Your task to perform on an android device: turn off data saver in the chrome app Image 0: 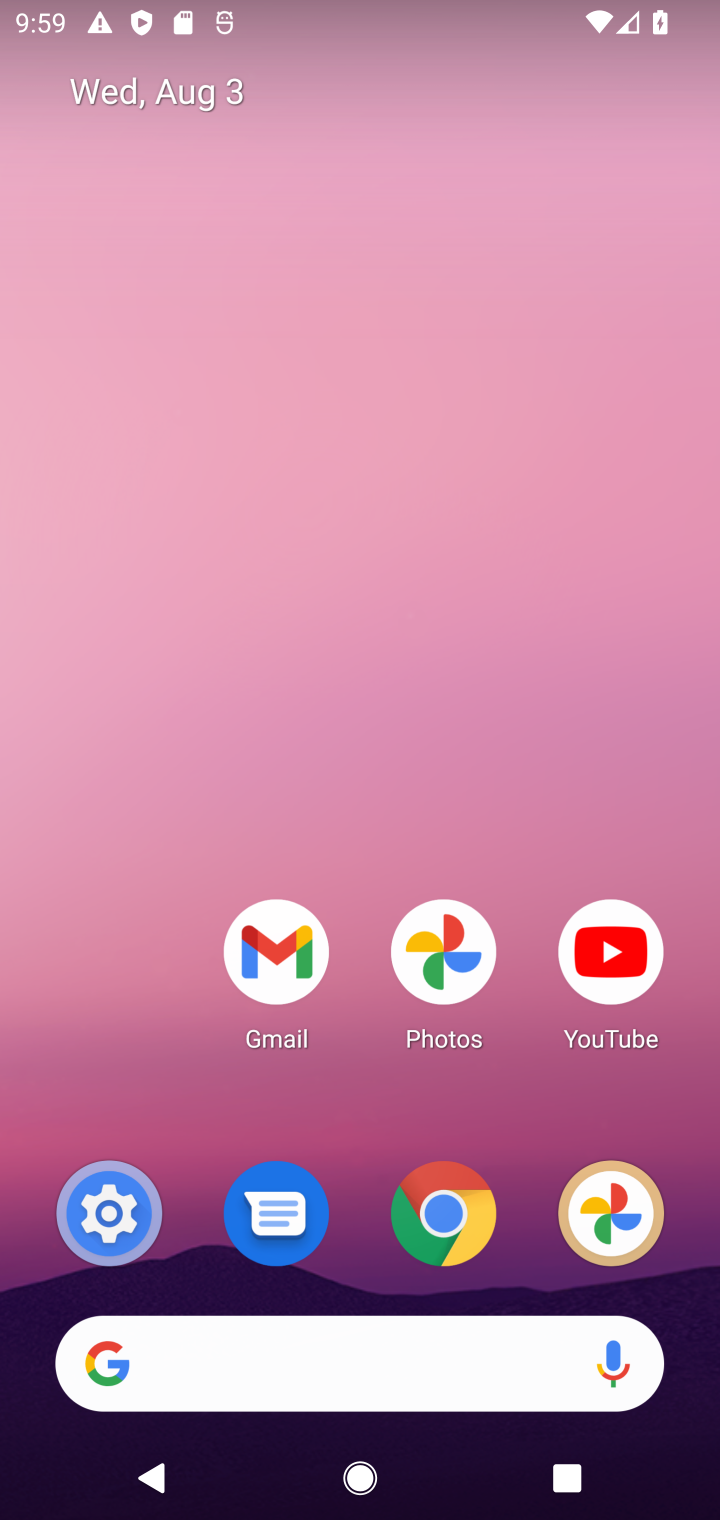
Step 0: press home button
Your task to perform on an android device: turn off data saver in the chrome app Image 1: 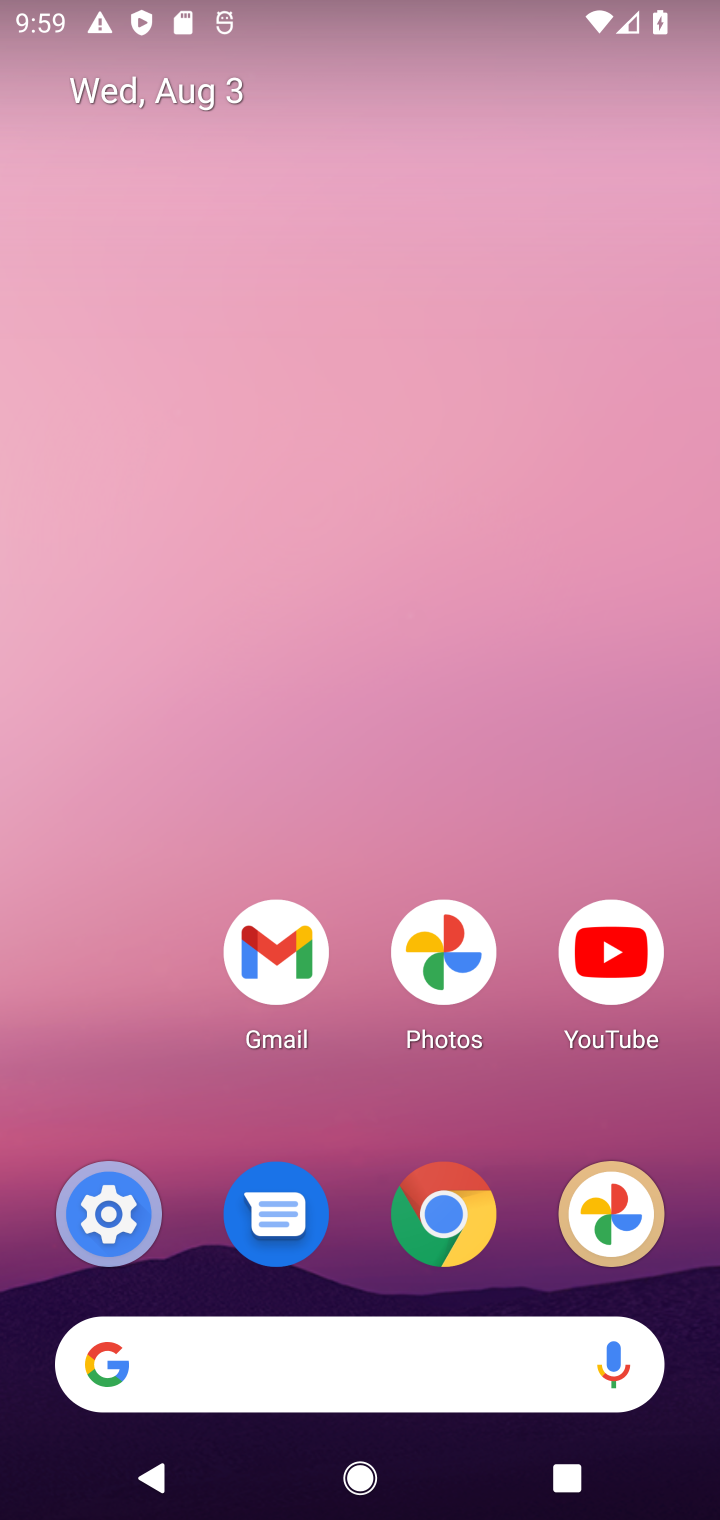
Step 1: click (442, 1257)
Your task to perform on an android device: turn off data saver in the chrome app Image 2: 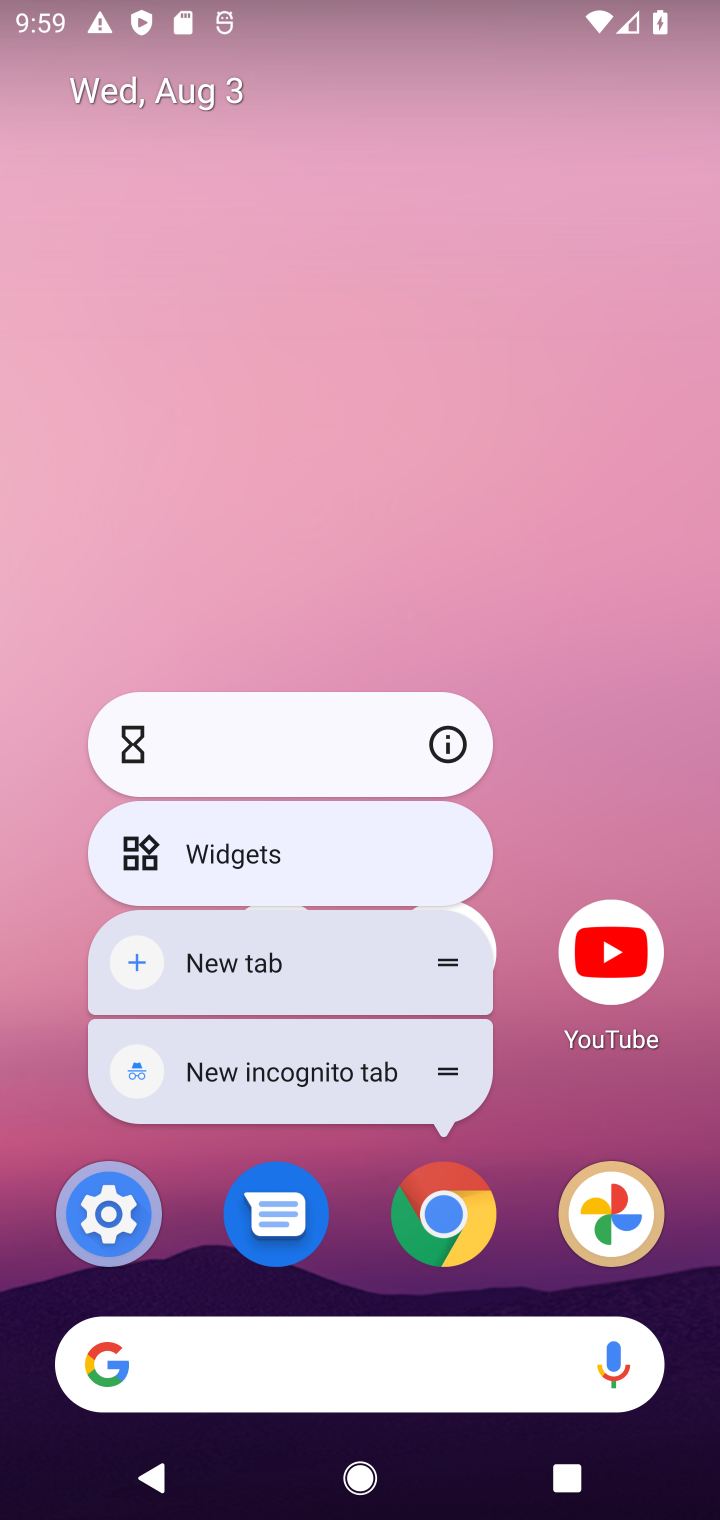
Step 2: click (442, 1257)
Your task to perform on an android device: turn off data saver in the chrome app Image 3: 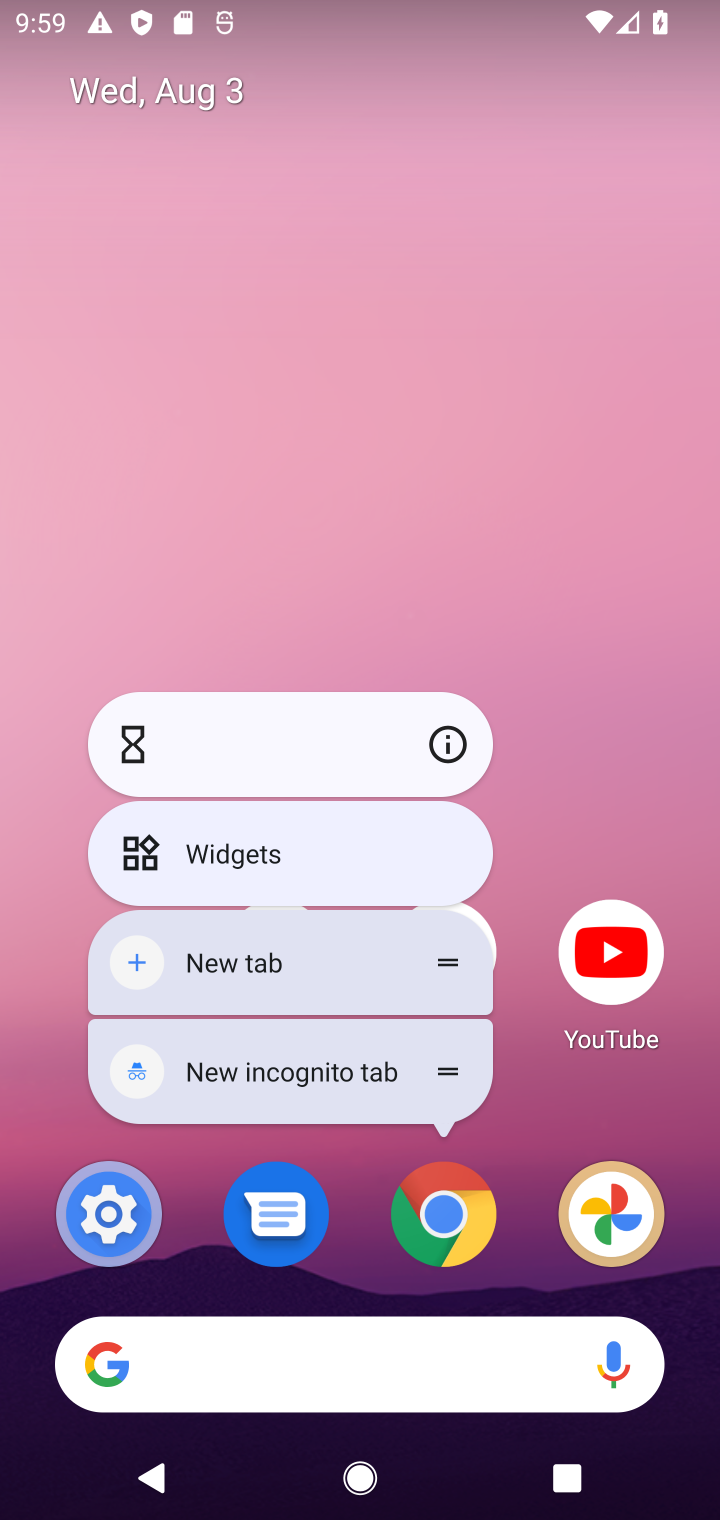
Step 3: click (471, 1223)
Your task to perform on an android device: turn off data saver in the chrome app Image 4: 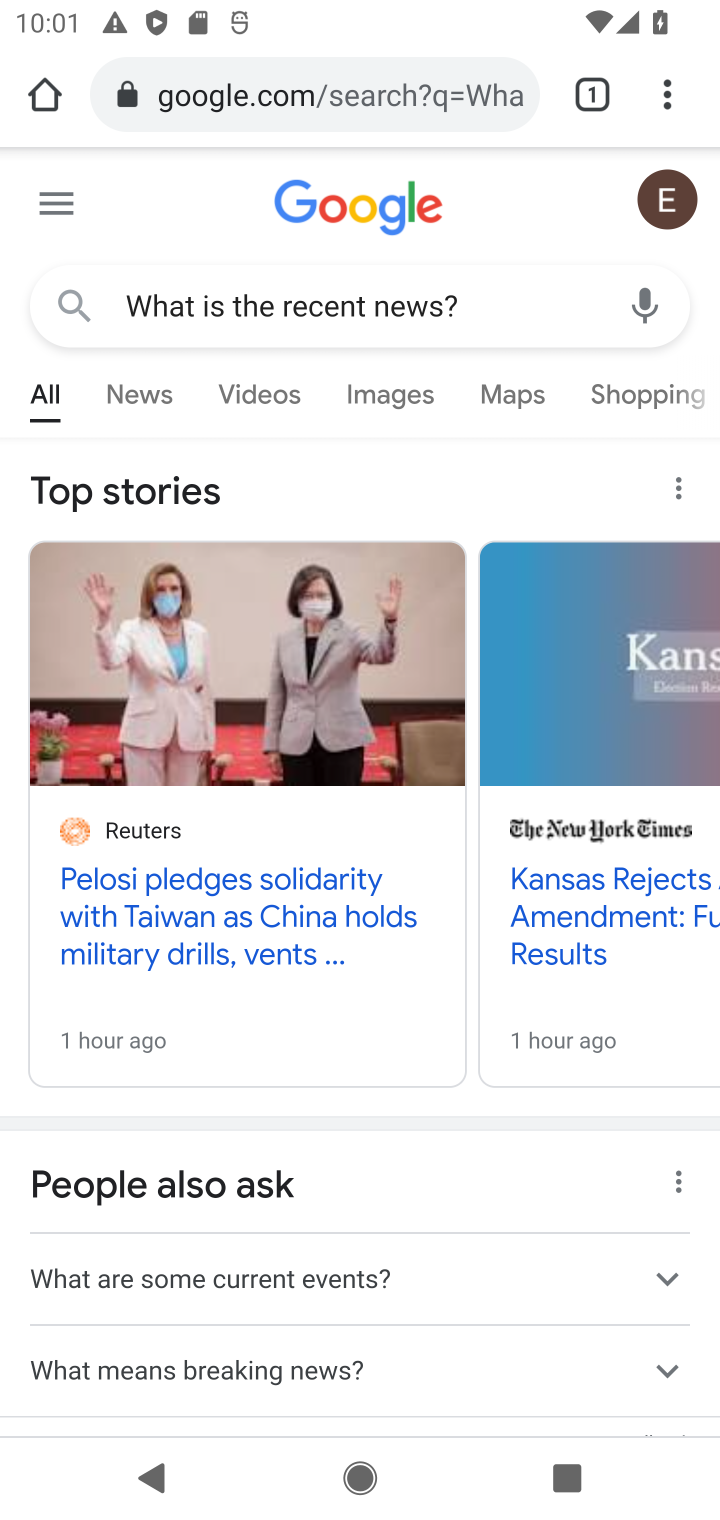
Step 4: drag from (667, 79) to (373, 1228)
Your task to perform on an android device: turn off data saver in the chrome app Image 5: 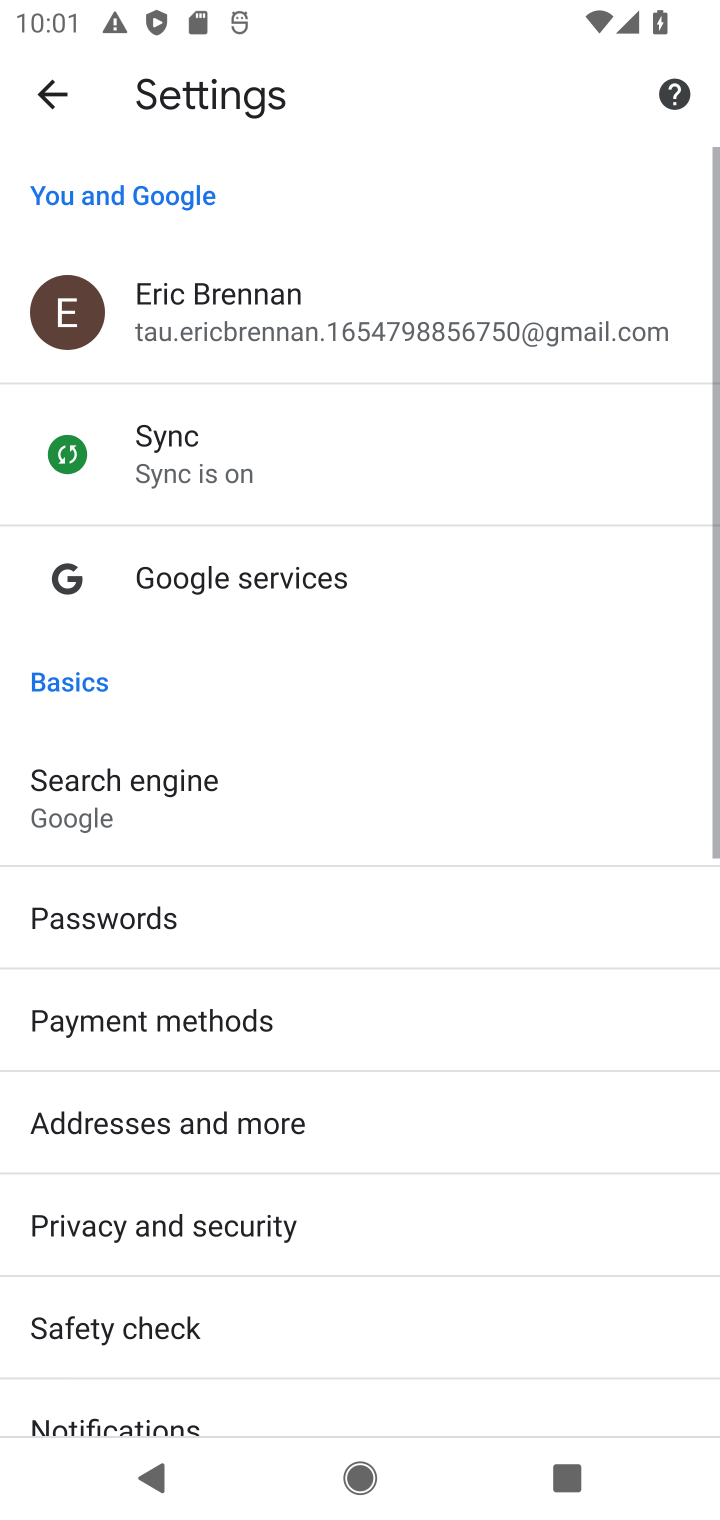
Step 5: drag from (175, 1263) to (376, 605)
Your task to perform on an android device: turn off data saver in the chrome app Image 6: 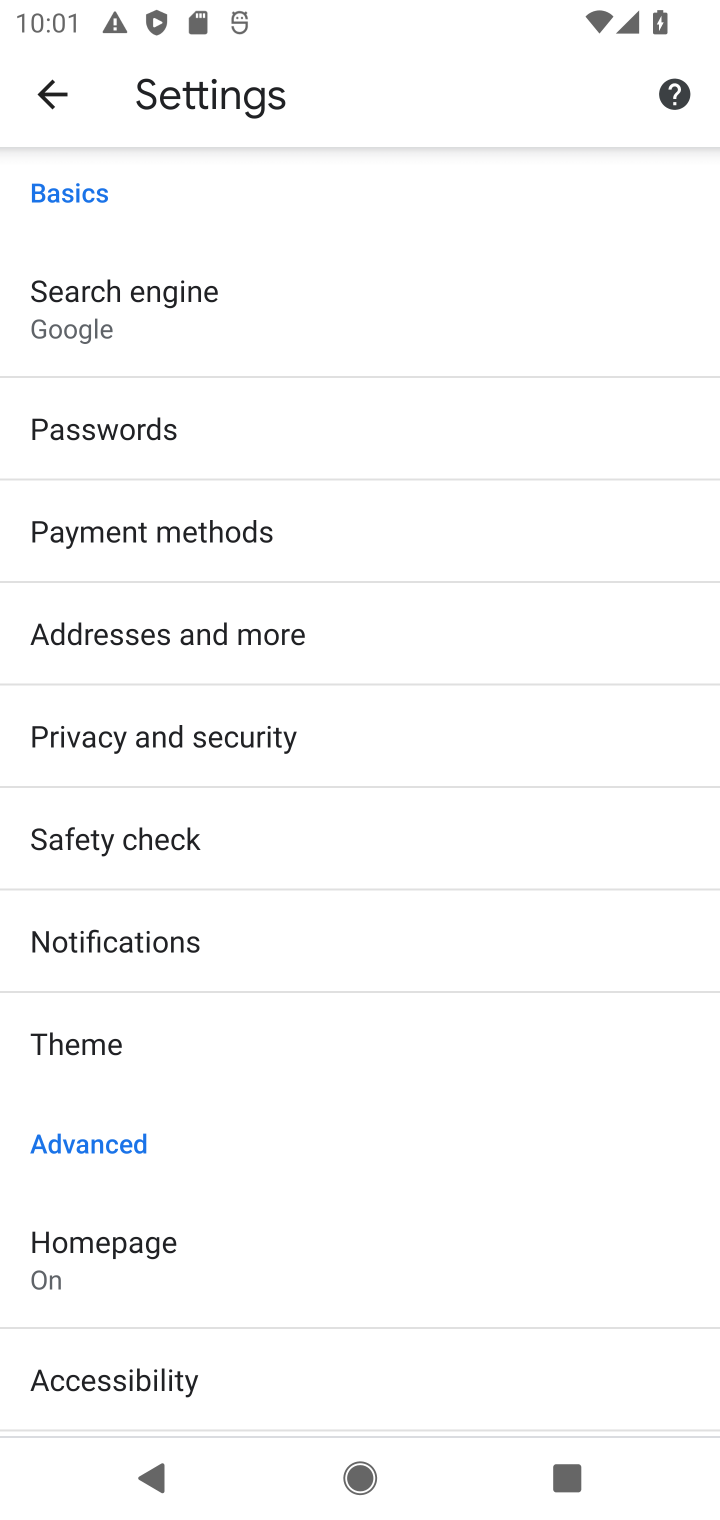
Step 6: drag from (158, 1329) to (245, 462)
Your task to perform on an android device: turn off data saver in the chrome app Image 7: 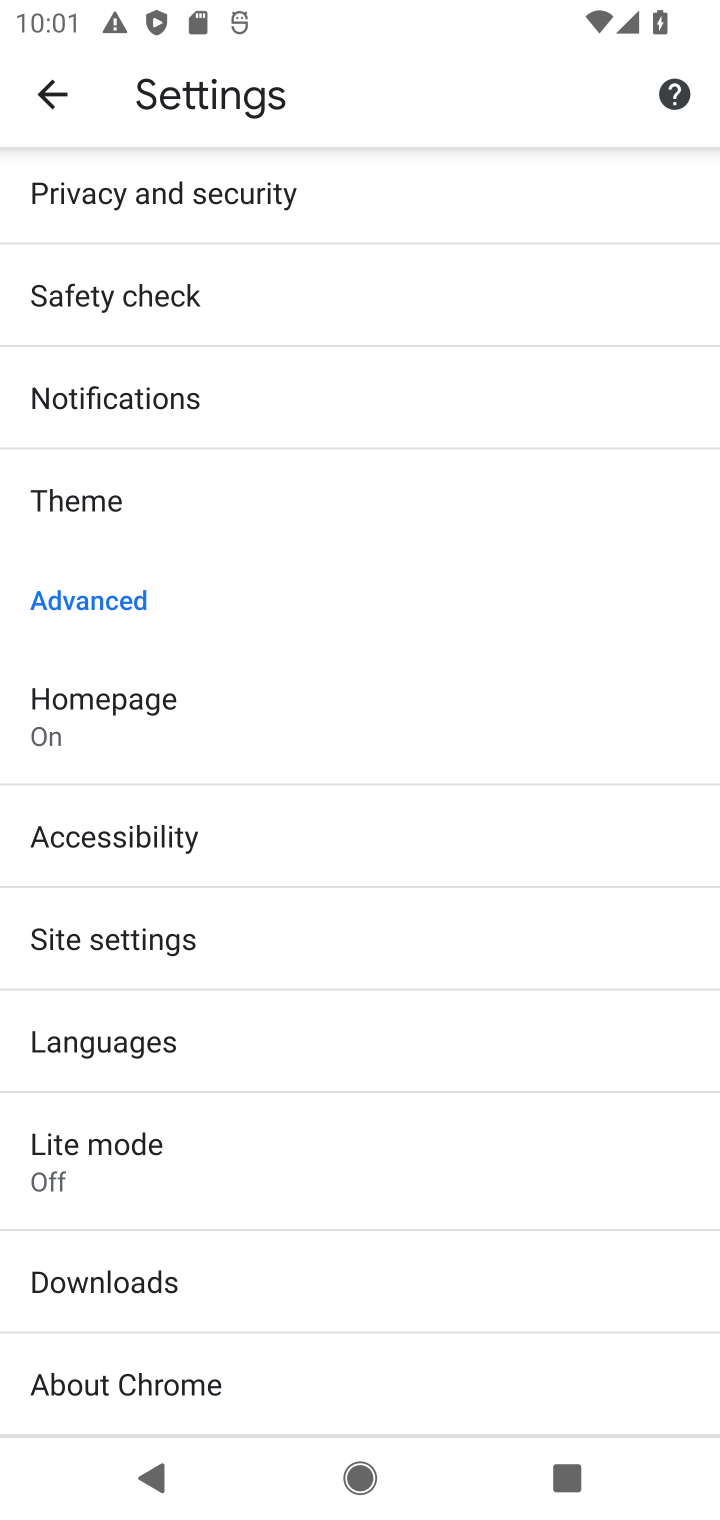
Step 7: click (131, 1145)
Your task to perform on an android device: turn off data saver in the chrome app Image 8: 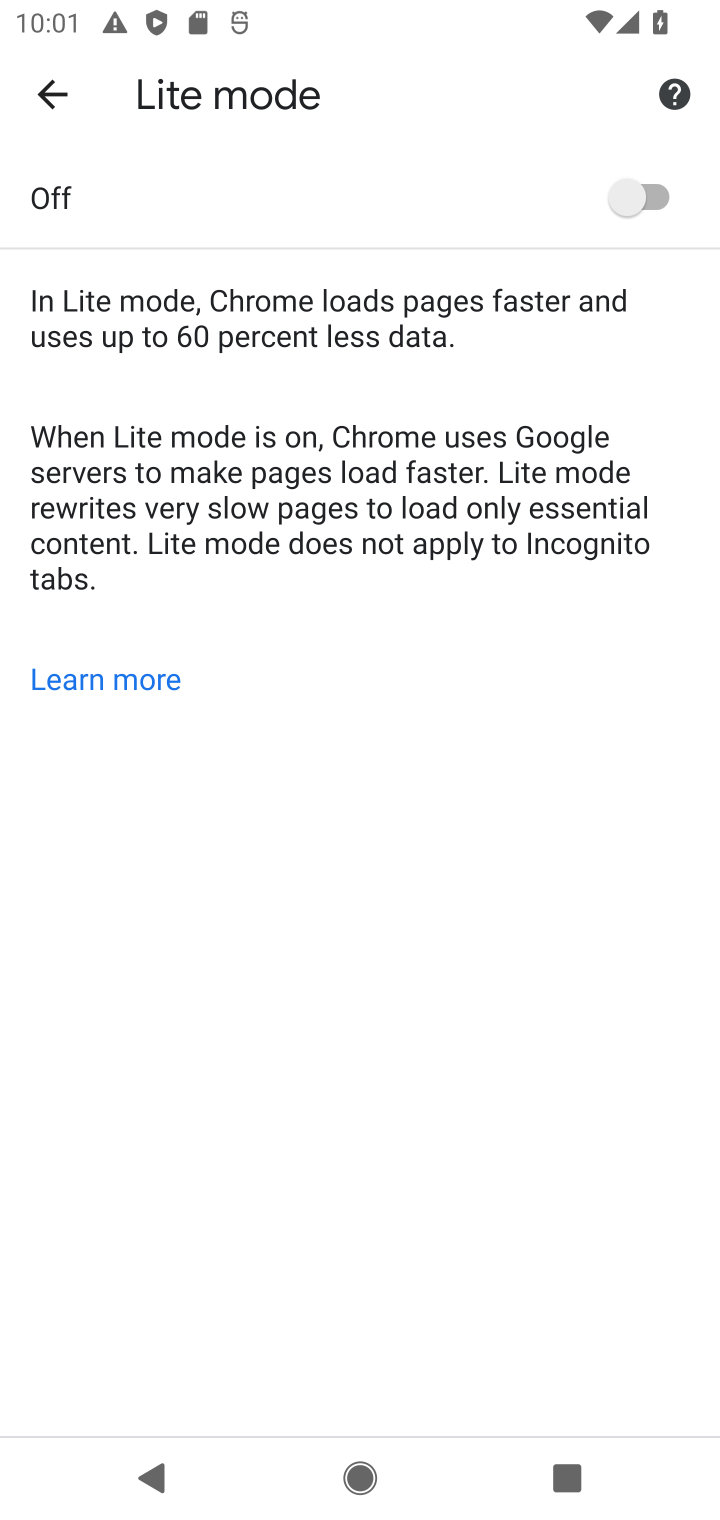
Step 8: task complete